Your task to perform on an android device: Turn on the flashlight Image 0: 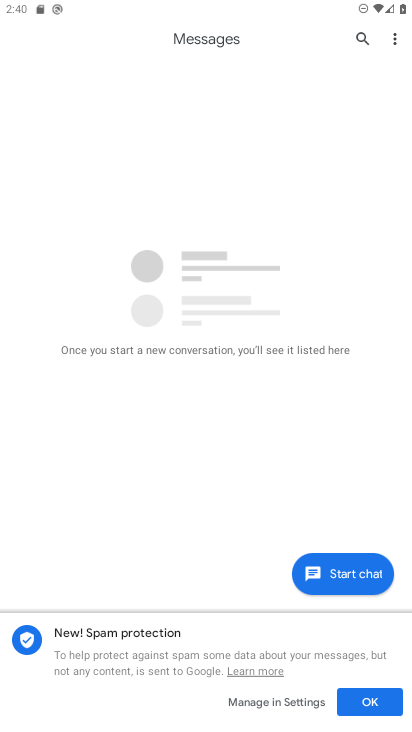
Step 0: press home button
Your task to perform on an android device: Turn on the flashlight Image 1: 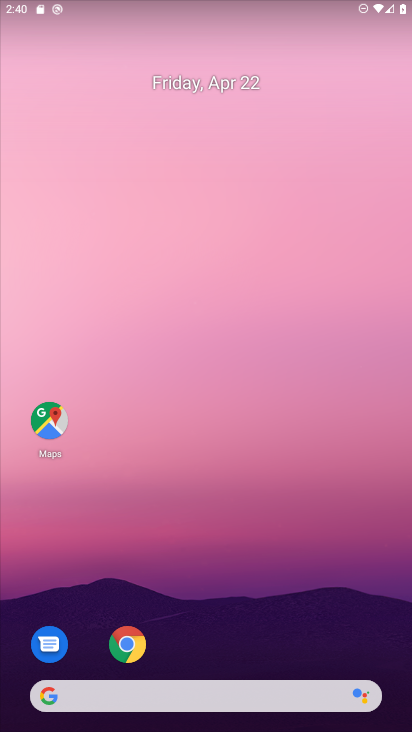
Step 1: drag from (293, 207) to (271, 483)
Your task to perform on an android device: Turn on the flashlight Image 2: 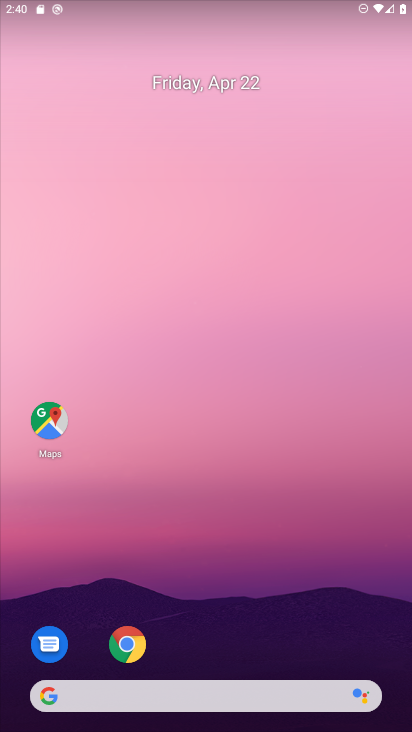
Step 2: drag from (277, 0) to (283, 457)
Your task to perform on an android device: Turn on the flashlight Image 3: 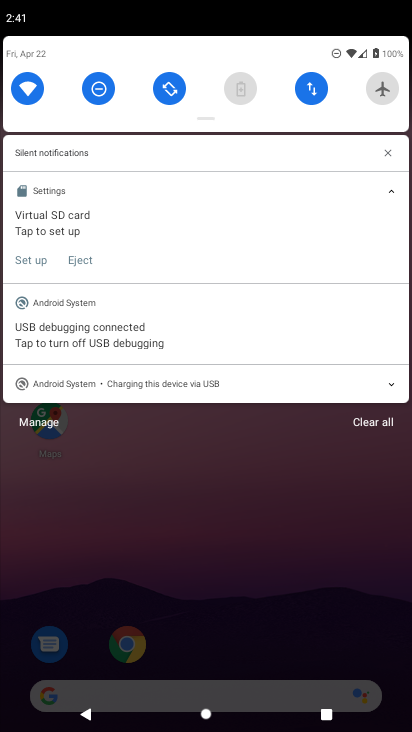
Step 3: drag from (352, 105) to (302, 447)
Your task to perform on an android device: Turn on the flashlight Image 4: 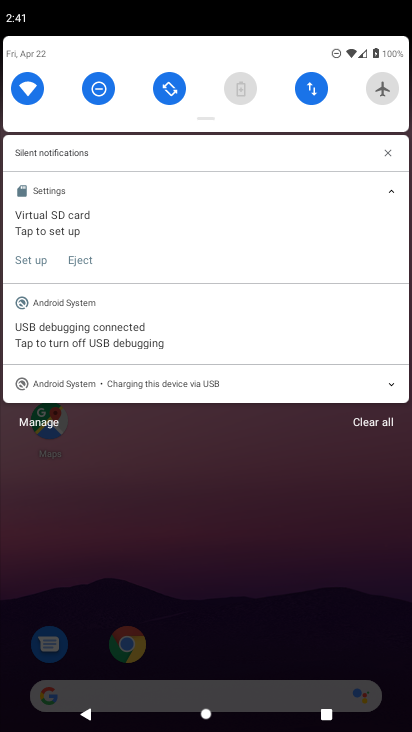
Step 4: drag from (335, 117) to (204, 393)
Your task to perform on an android device: Turn on the flashlight Image 5: 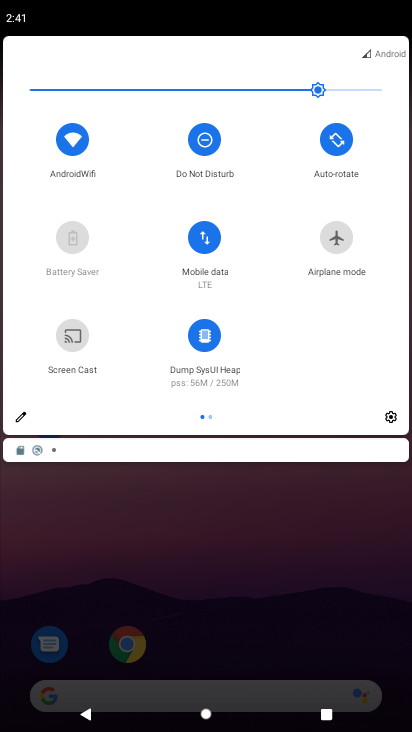
Step 5: drag from (345, 288) to (100, 266)
Your task to perform on an android device: Turn on the flashlight Image 6: 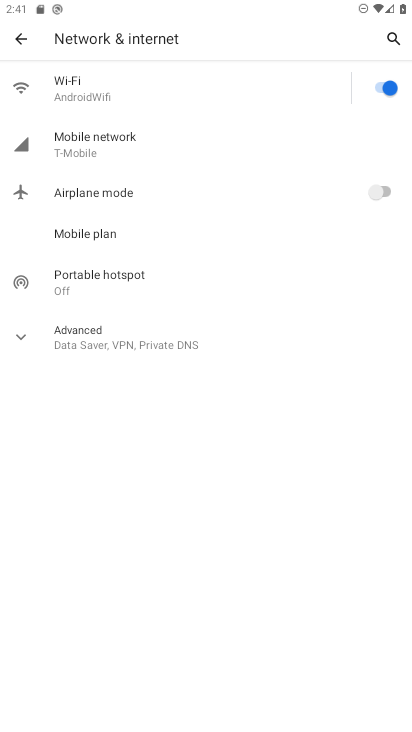
Step 6: click (15, 36)
Your task to perform on an android device: Turn on the flashlight Image 7: 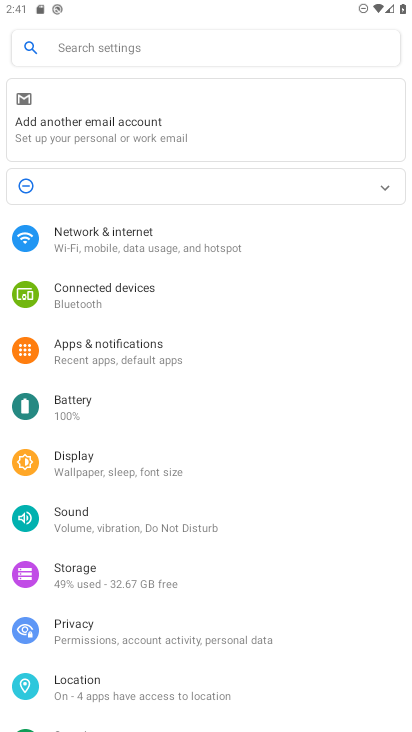
Step 7: click (105, 463)
Your task to perform on an android device: Turn on the flashlight Image 8: 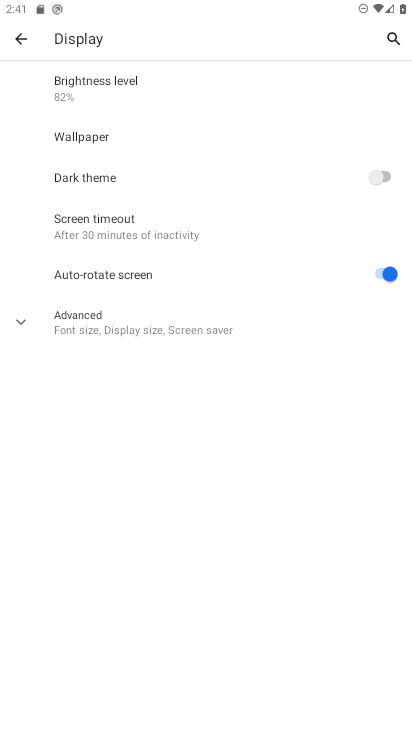
Step 8: task complete